Your task to perform on an android device: Open Yahoo.com Image 0: 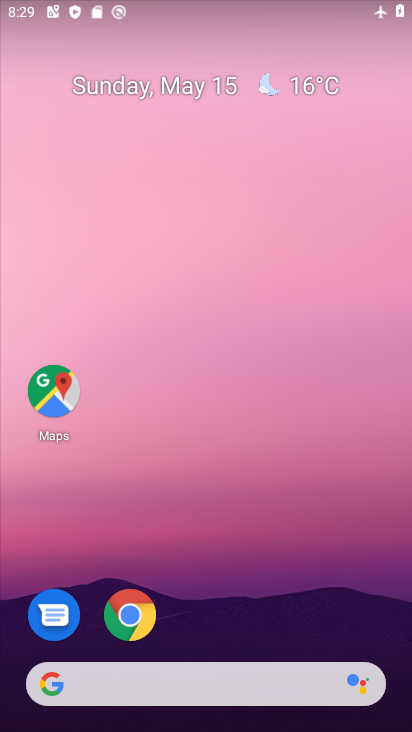
Step 0: click (140, 605)
Your task to perform on an android device: Open Yahoo.com Image 1: 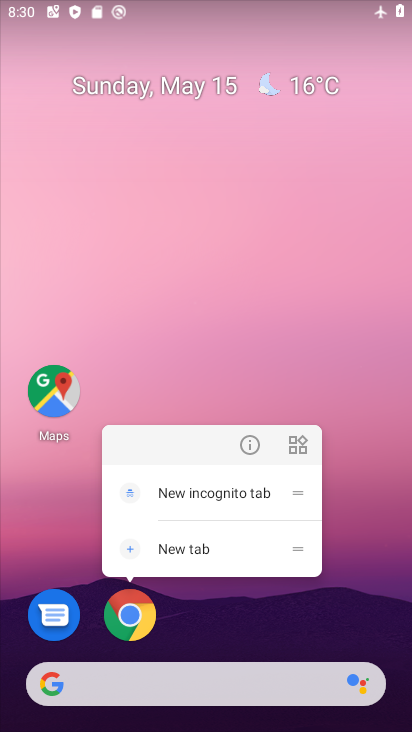
Step 1: click (118, 615)
Your task to perform on an android device: Open Yahoo.com Image 2: 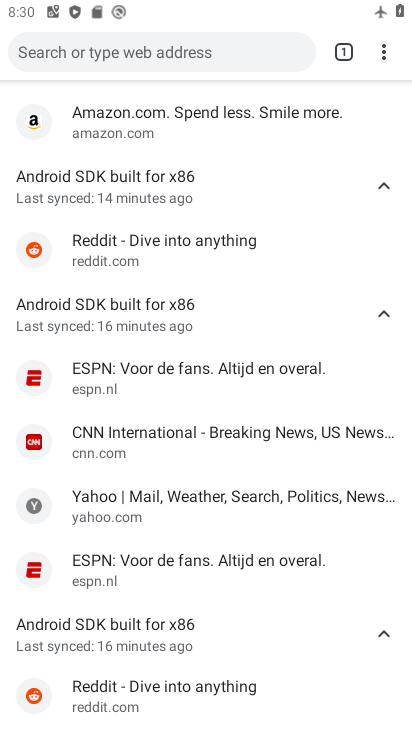
Step 2: click (347, 62)
Your task to perform on an android device: Open Yahoo.com Image 3: 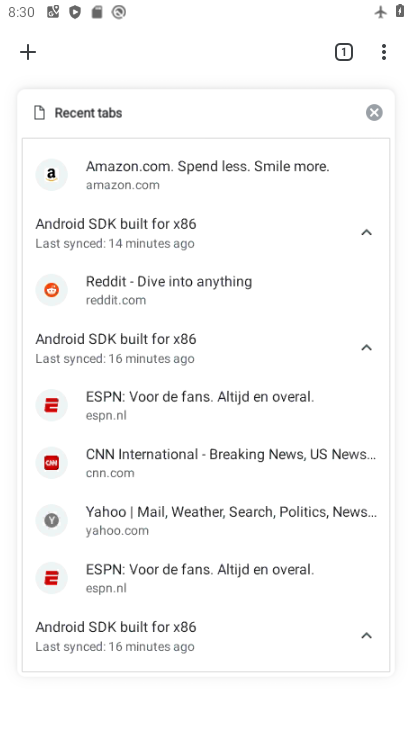
Step 3: click (374, 115)
Your task to perform on an android device: Open Yahoo.com Image 4: 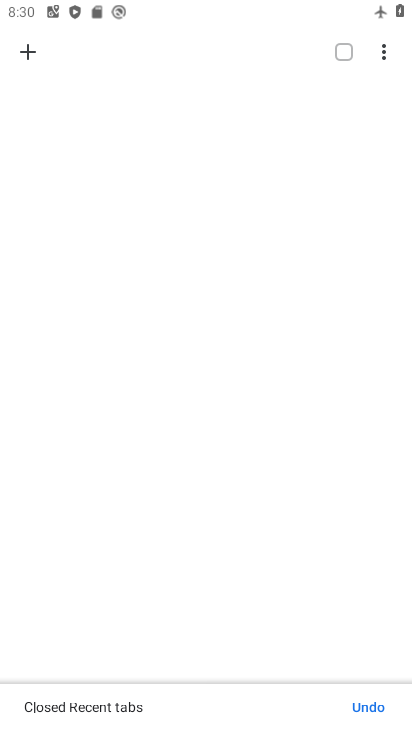
Step 4: click (35, 53)
Your task to perform on an android device: Open Yahoo.com Image 5: 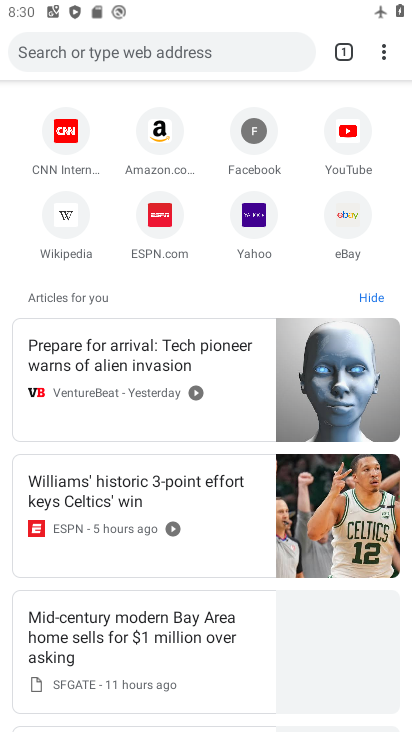
Step 5: click (242, 209)
Your task to perform on an android device: Open Yahoo.com Image 6: 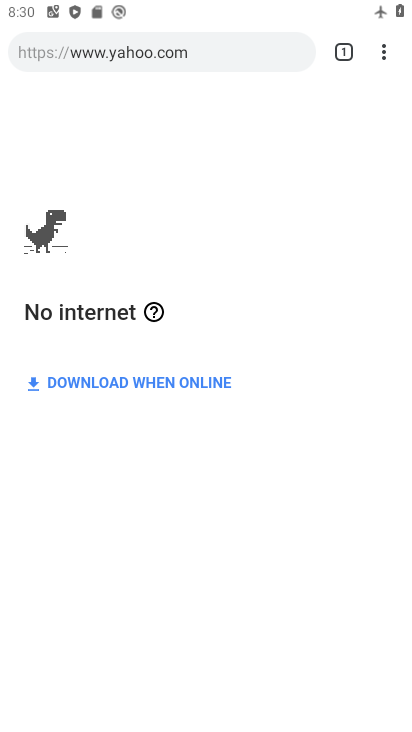
Step 6: drag from (337, 178) to (305, 578)
Your task to perform on an android device: Open Yahoo.com Image 7: 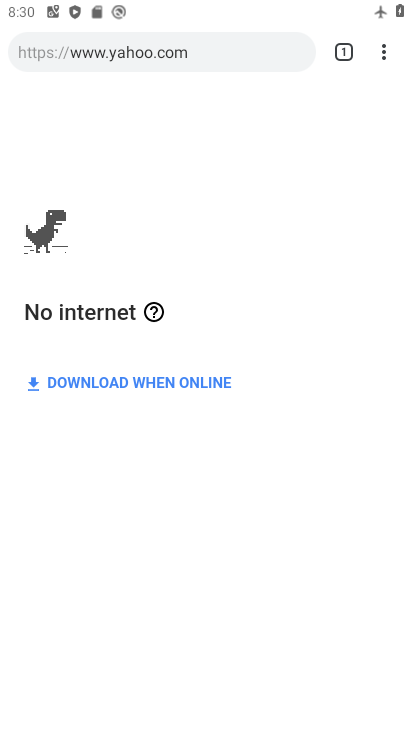
Step 7: drag from (396, 4) to (340, 412)
Your task to perform on an android device: Open Yahoo.com Image 8: 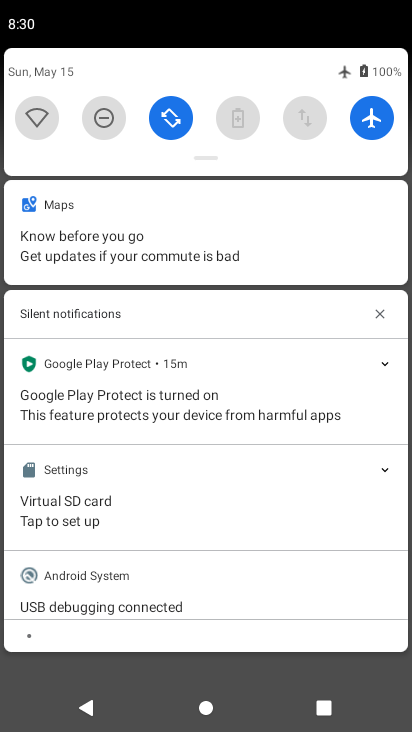
Step 8: click (377, 123)
Your task to perform on an android device: Open Yahoo.com Image 9: 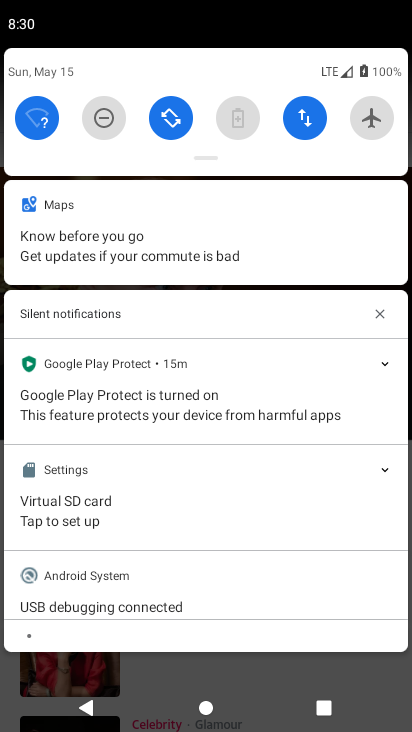
Step 9: task complete